Your task to perform on an android device: Open internet settings Image 0: 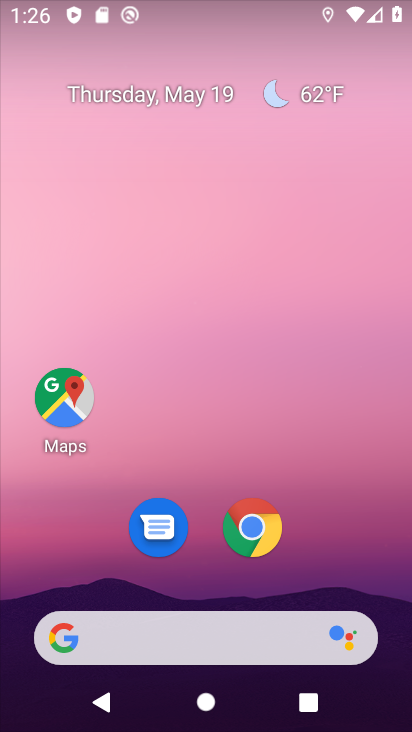
Step 0: drag from (347, 554) to (346, 161)
Your task to perform on an android device: Open internet settings Image 1: 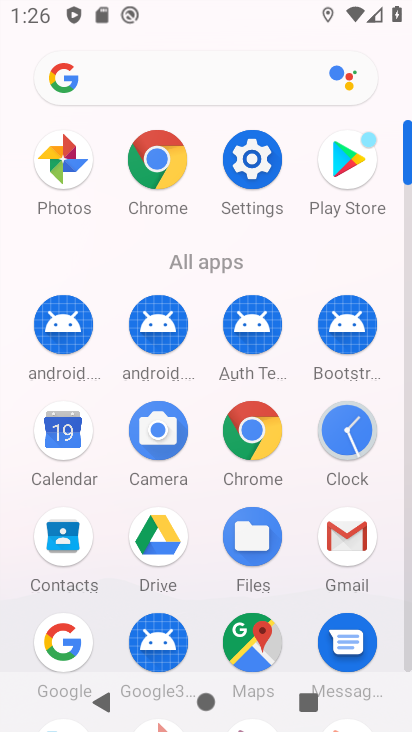
Step 1: click (237, 178)
Your task to perform on an android device: Open internet settings Image 2: 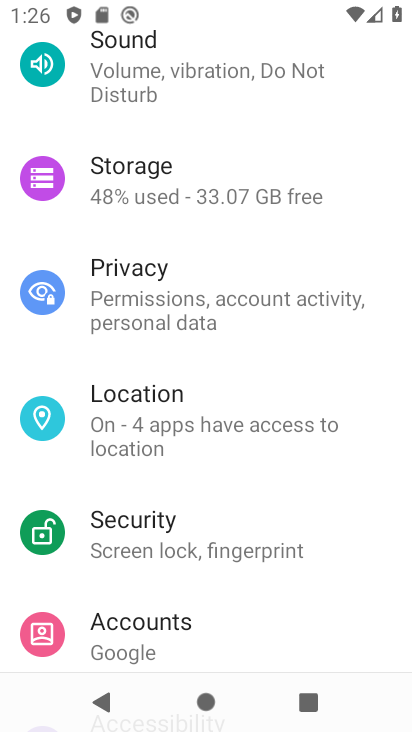
Step 2: drag from (316, 47) to (114, 530)
Your task to perform on an android device: Open internet settings Image 3: 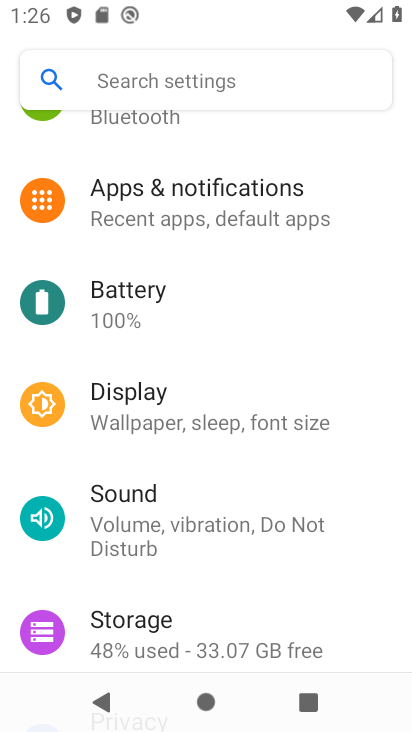
Step 3: drag from (239, 251) to (196, 718)
Your task to perform on an android device: Open internet settings Image 4: 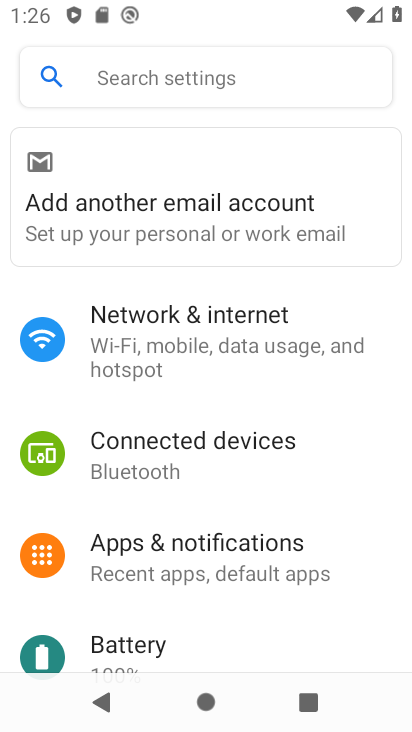
Step 4: click (265, 324)
Your task to perform on an android device: Open internet settings Image 5: 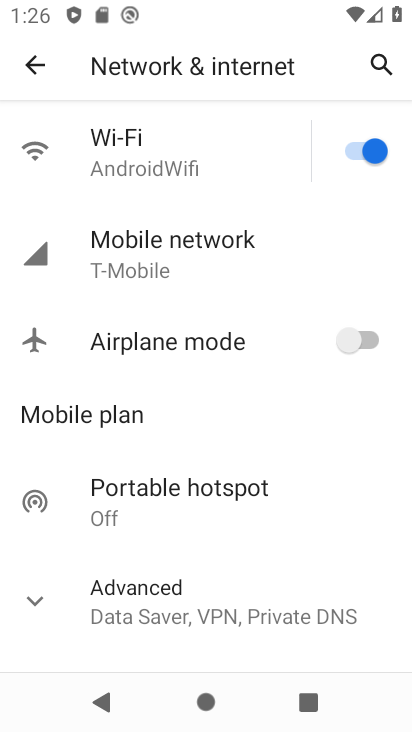
Step 5: click (231, 251)
Your task to perform on an android device: Open internet settings Image 6: 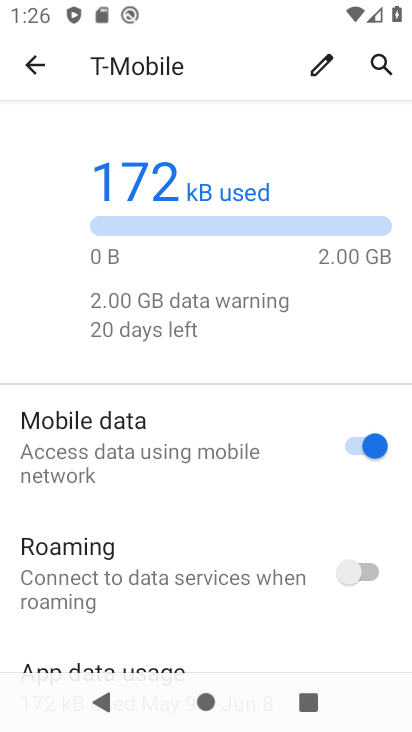
Step 6: task complete